Your task to perform on an android device: turn on improve location accuracy Image 0: 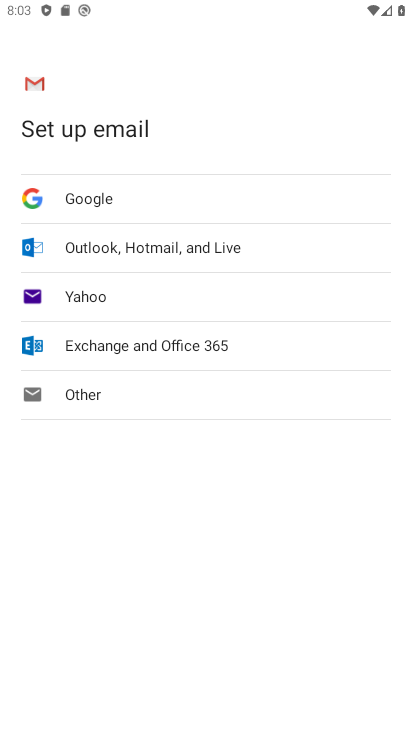
Step 0: press home button
Your task to perform on an android device: turn on improve location accuracy Image 1: 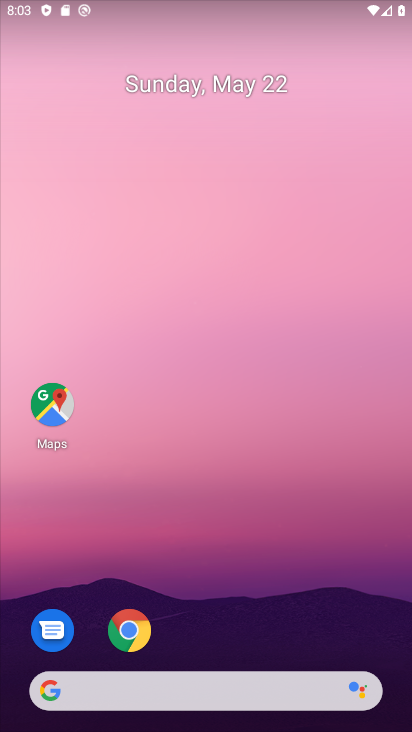
Step 1: drag from (358, 563) to (369, 143)
Your task to perform on an android device: turn on improve location accuracy Image 2: 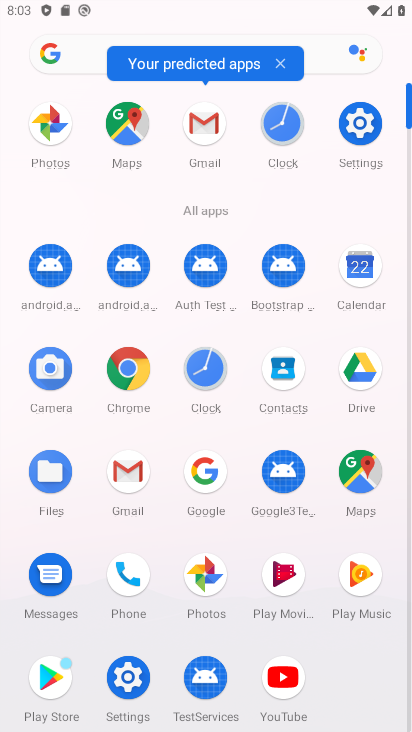
Step 2: click (363, 128)
Your task to perform on an android device: turn on improve location accuracy Image 3: 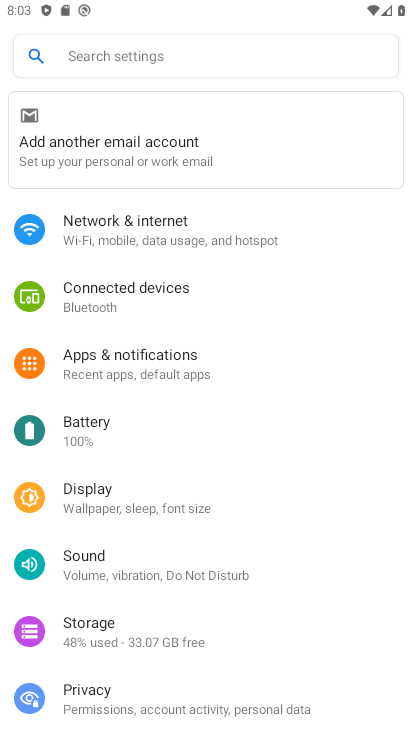
Step 3: drag from (334, 581) to (341, 492)
Your task to perform on an android device: turn on improve location accuracy Image 4: 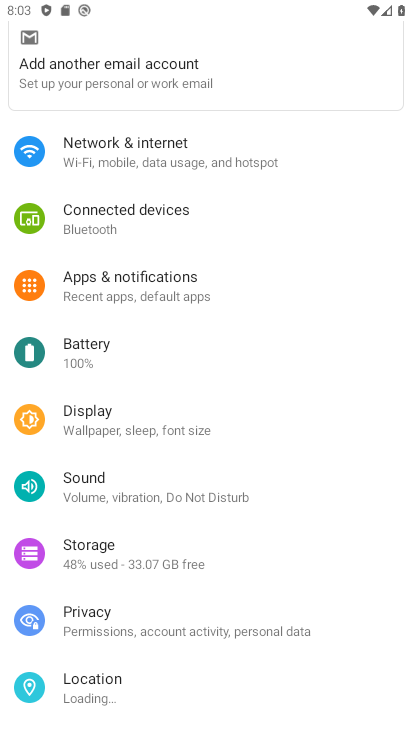
Step 4: drag from (352, 641) to (363, 537)
Your task to perform on an android device: turn on improve location accuracy Image 5: 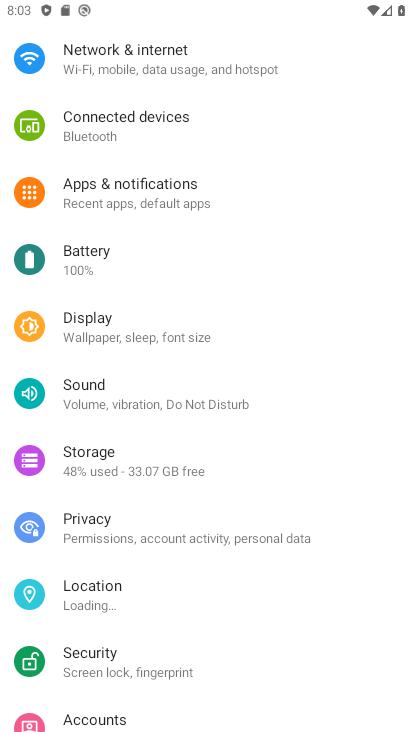
Step 5: drag from (343, 652) to (353, 565)
Your task to perform on an android device: turn on improve location accuracy Image 6: 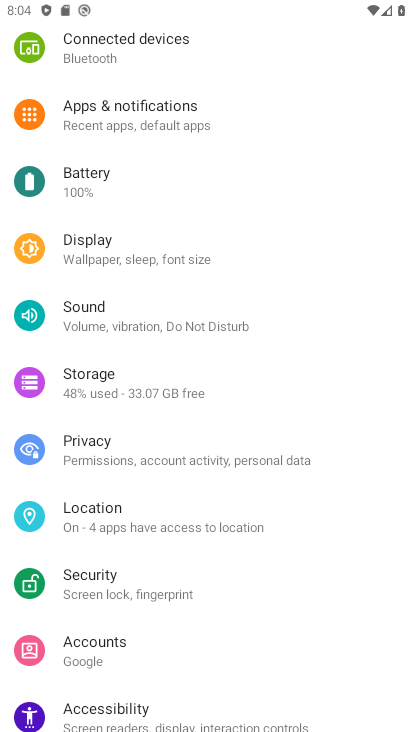
Step 6: drag from (351, 659) to (355, 574)
Your task to perform on an android device: turn on improve location accuracy Image 7: 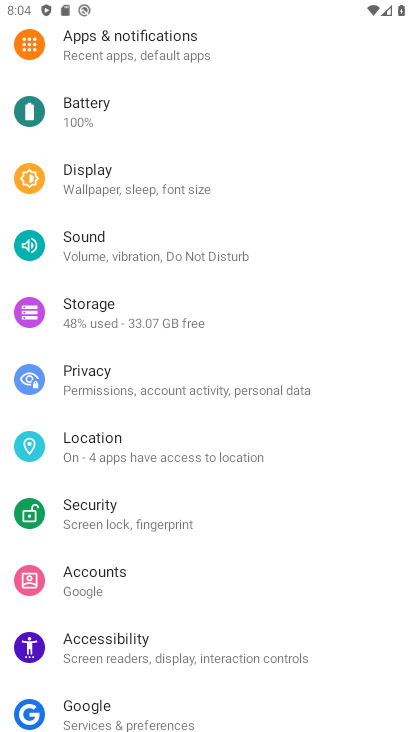
Step 7: drag from (346, 645) to (348, 531)
Your task to perform on an android device: turn on improve location accuracy Image 8: 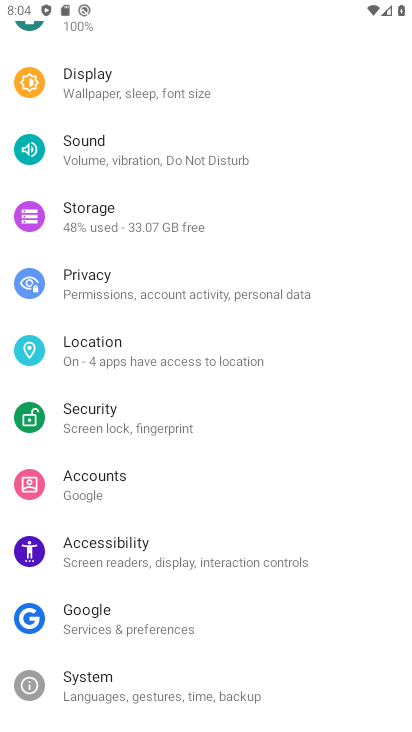
Step 8: drag from (358, 633) to (357, 550)
Your task to perform on an android device: turn on improve location accuracy Image 9: 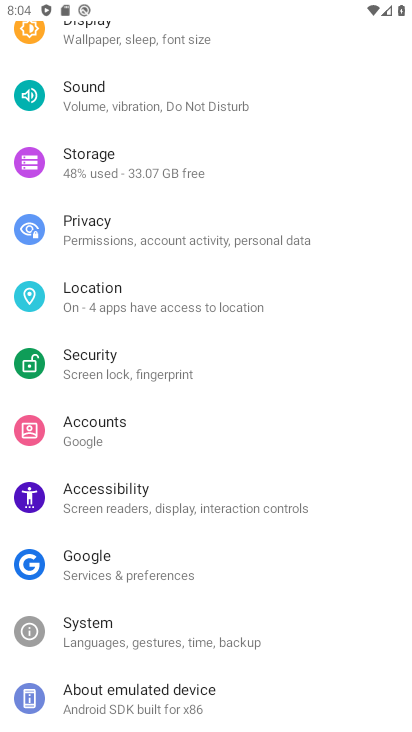
Step 9: drag from (353, 640) to (358, 536)
Your task to perform on an android device: turn on improve location accuracy Image 10: 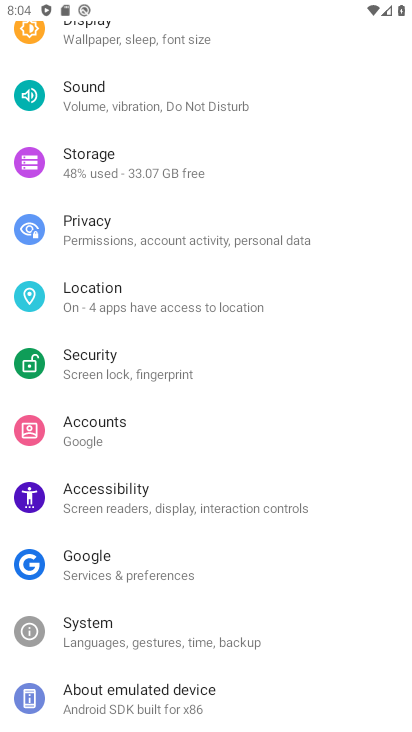
Step 10: drag from (353, 625) to (355, 504)
Your task to perform on an android device: turn on improve location accuracy Image 11: 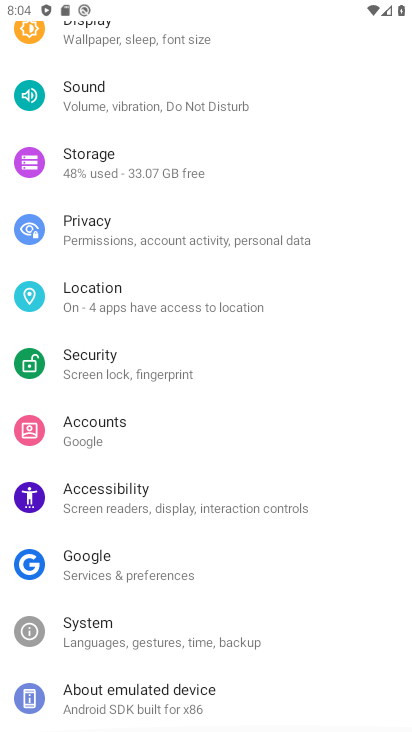
Step 11: drag from (349, 387) to (349, 479)
Your task to perform on an android device: turn on improve location accuracy Image 12: 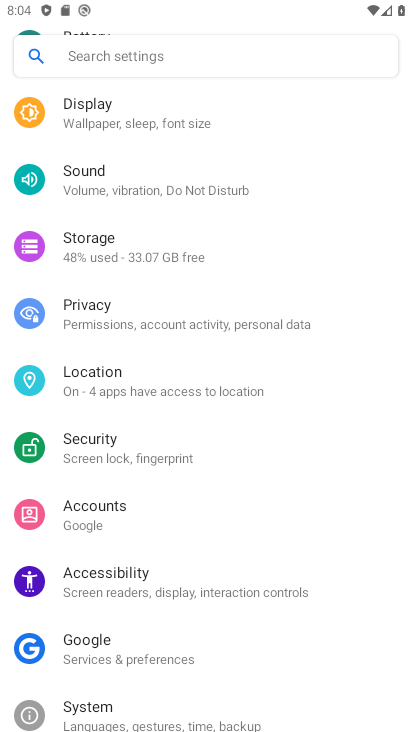
Step 12: drag from (342, 390) to (336, 466)
Your task to perform on an android device: turn on improve location accuracy Image 13: 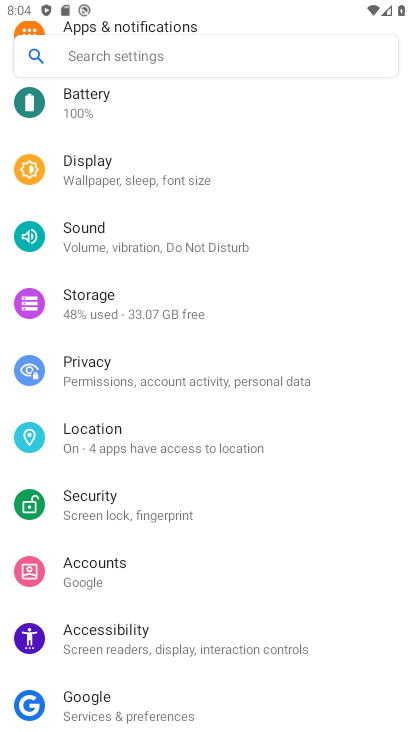
Step 13: click (265, 446)
Your task to perform on an android device: turn on improve location accuracy Image 14: 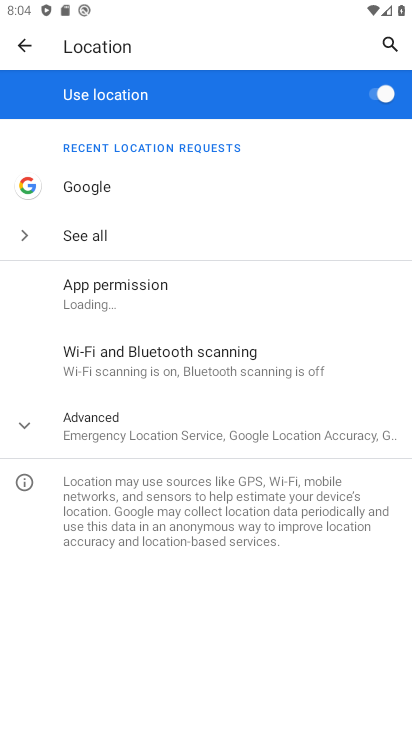
Step 14: click (265, 443)
Your task to perform on an android device: turn on improve location accuracy Image 15: 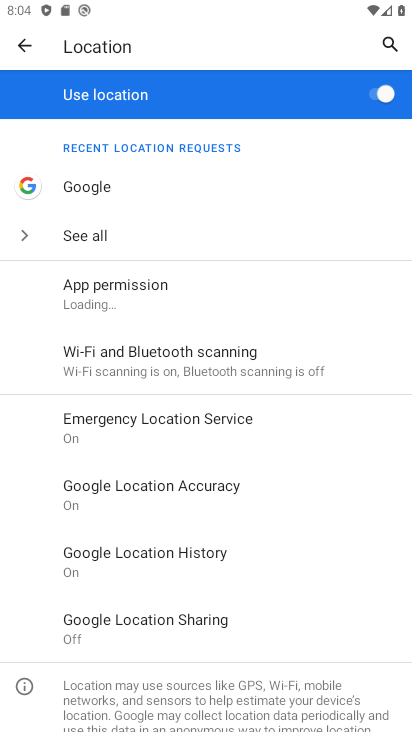
Step 15: drag from (292, 615) to (300, 532)
Your task to perform on an android device: turn on improve location accuracy Image 16: 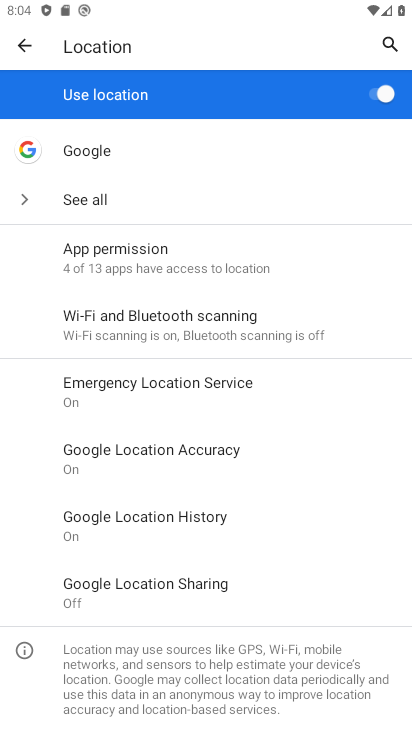
Step 16: click (186, 459)
Your task to perform on an android device: turn on improve location accuracy Image 17: 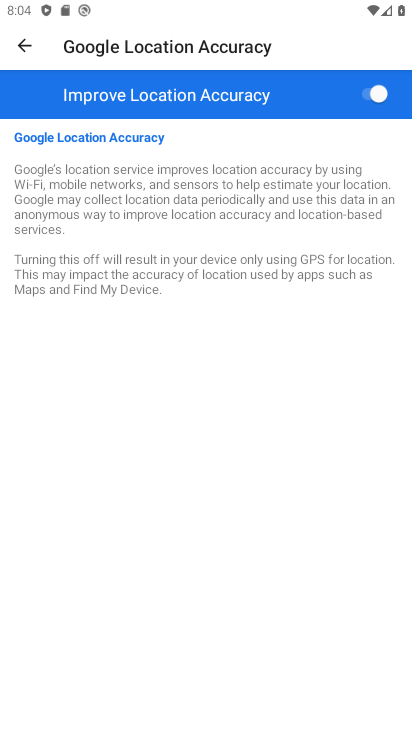
Step 17: task complete